Your task to perform on an android device: move a message to another label in the gmail app Image 0: 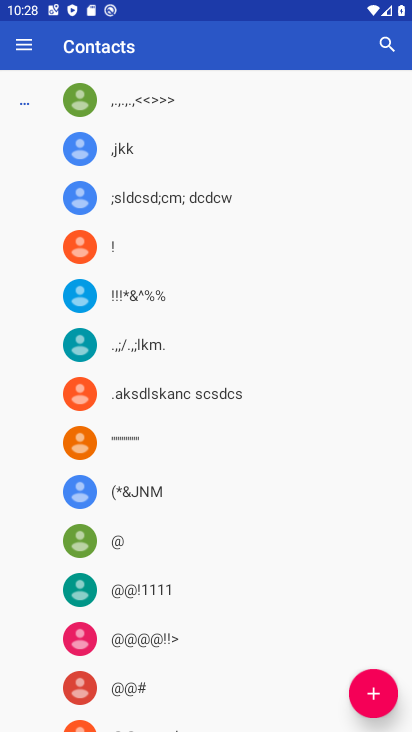
Step 0: press home button
Your task to perform on an android device: move a message to another label in the gmail app Image 1: 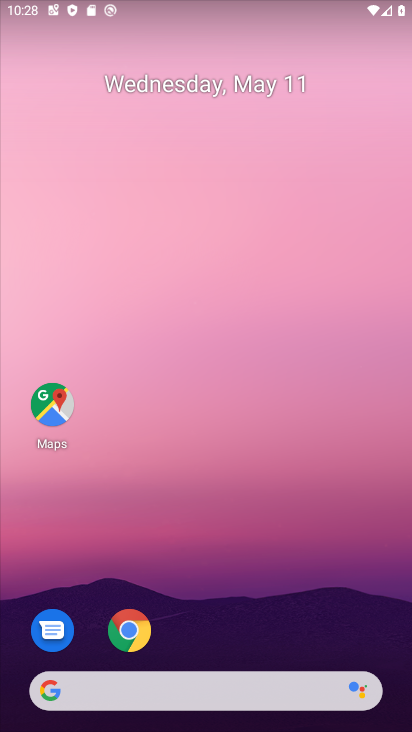
Step 1: drag from (219, 728) to (217, 42)
Your task to perform on an android device: move a message to another label in the gmail app Image 2: 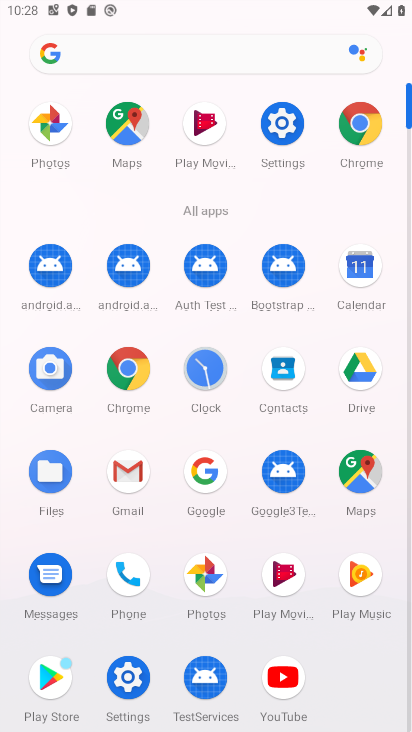
Step 2: click (130, 471)
Your task to perform on an android device: move a message to another label in the gmail app Image 3: 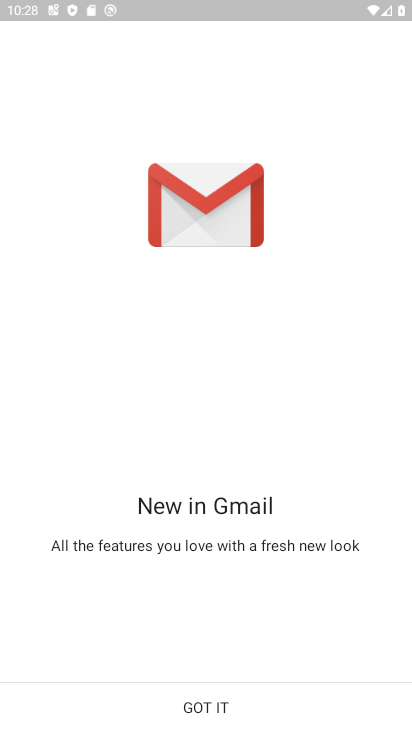
Step 3: click (209, 700)
Your task to perform on an android device: move a message to another label in the gmail app Image 4: 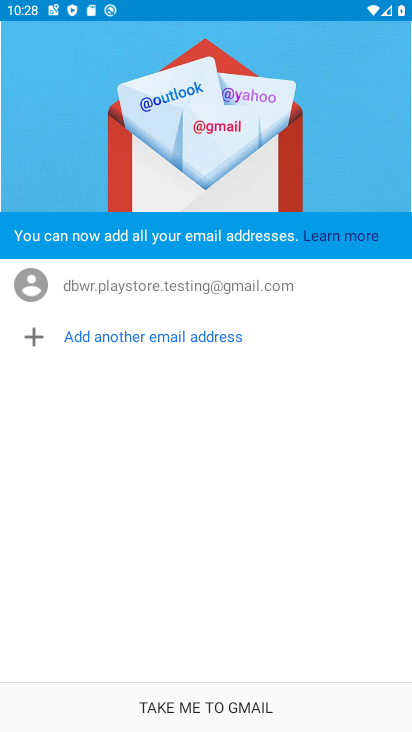
Step 4: click (206, 699)
Your task to perform on an android device: move a message to another label in the gmail app Image 5: 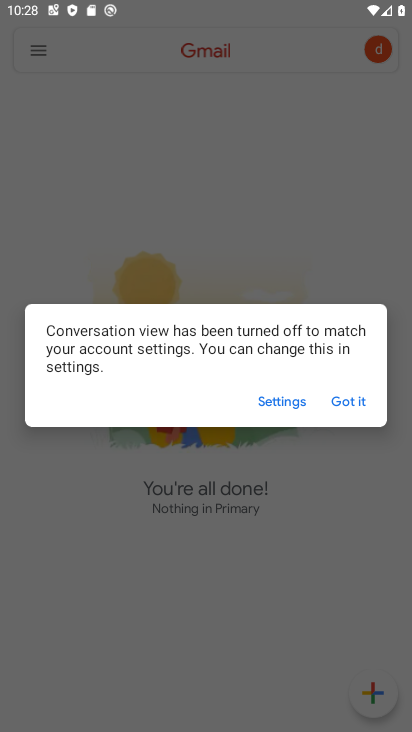
Step 5: click (350, 400)
Your task to perform on an android device: move a message to another label in the gmail app Image 6: 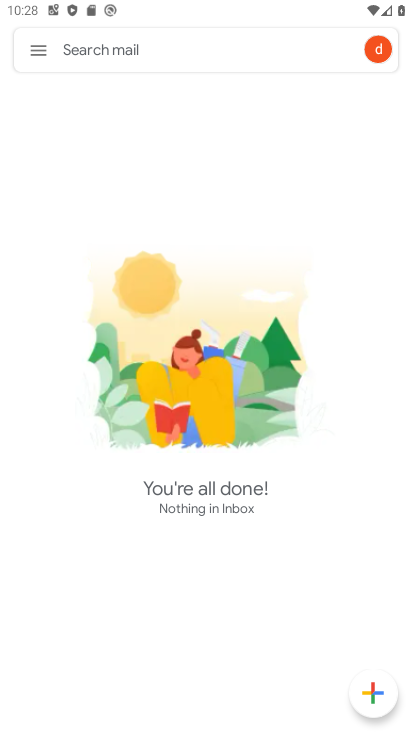
Step 6: task complete